Your task to perform on an android device: delete a single message in the gmail app Image 0: 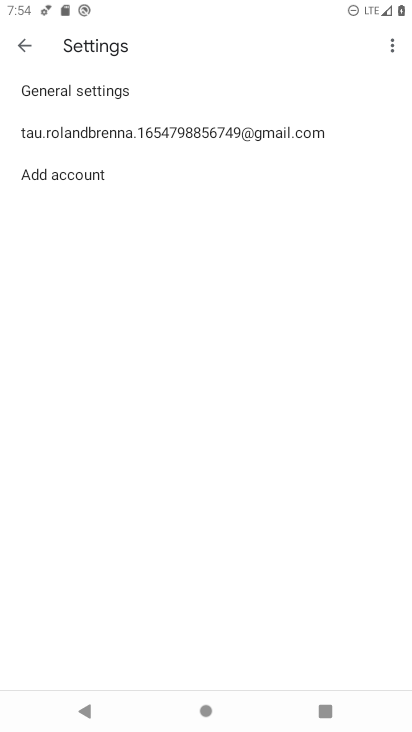
Step 0: press home button
Your task to perform on an android device: delete a single message in the gmail app Image 1: 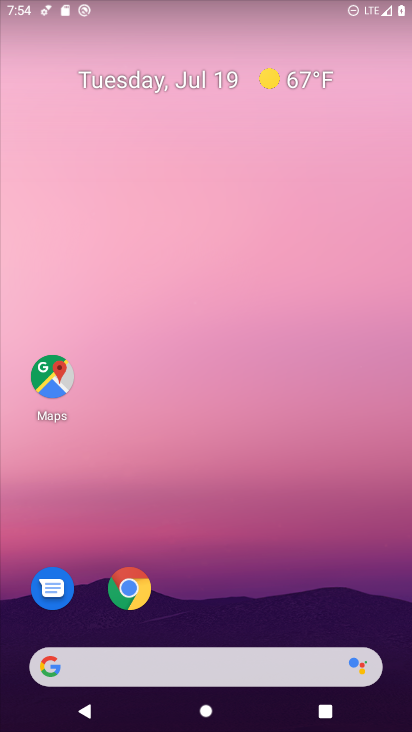
Step 1: drag from (359, 583) to (382, 99)
Your task to perform on an android device: delete a single message in the gmail app Image 2: 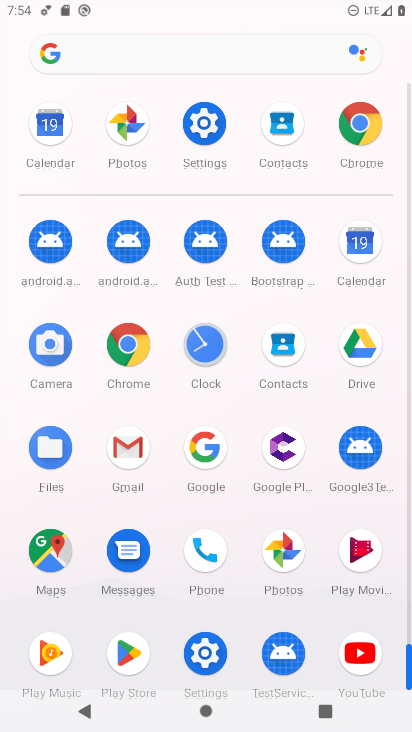
Step 2: click (129, 450)
Your task to perform on an android device: delete a single message in the gmail app Image 3: 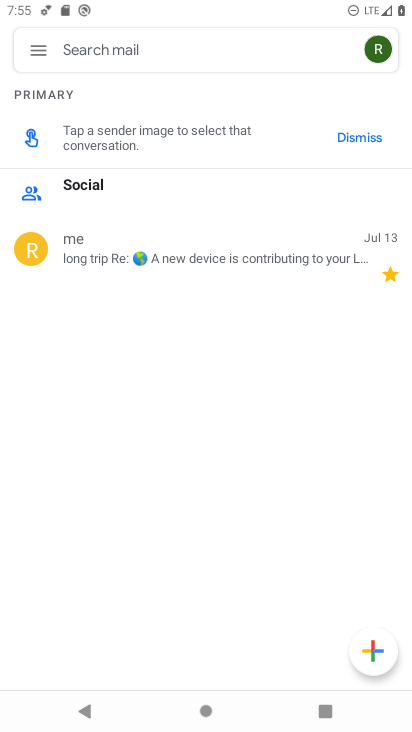
Step 3: click (215, 249)
Your task to perform on an android device: delete a single message in the gmail app Image 4: 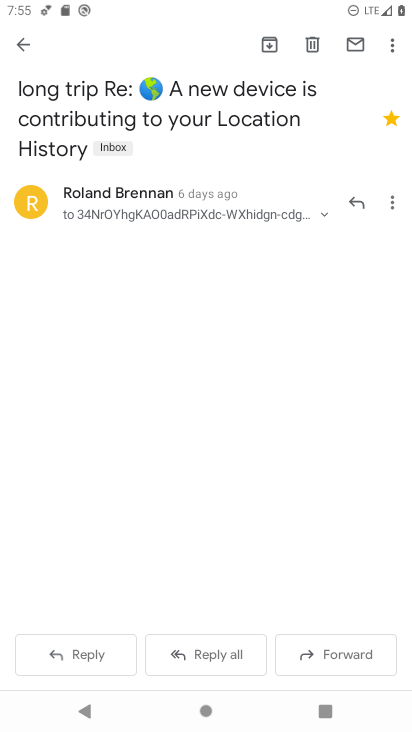
Step 4: click (313, 44)
Your task to perform on an android device: delete a single message in the gmail app Image 5: 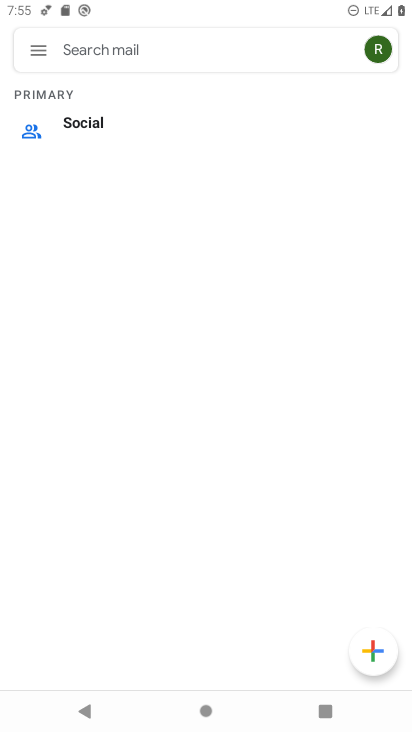
Step 5: task complete